Your task to perform on an android device: Open Yahoo.com Image 0: 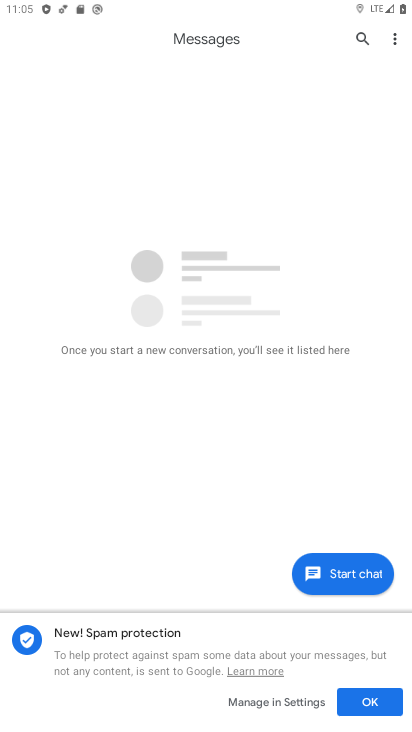
Step 0: press home button
Your task to perform on an android device: Open Yahoo.com Image 1: 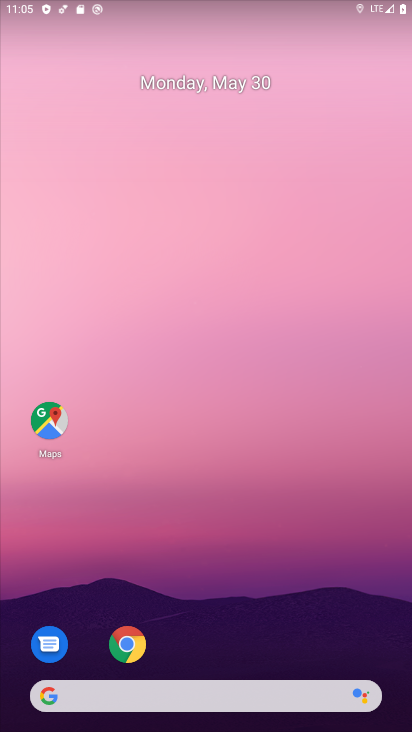
Step 1: click (111, 652)
Your task to perform on an android device: Open Yahoo.com Image 2: 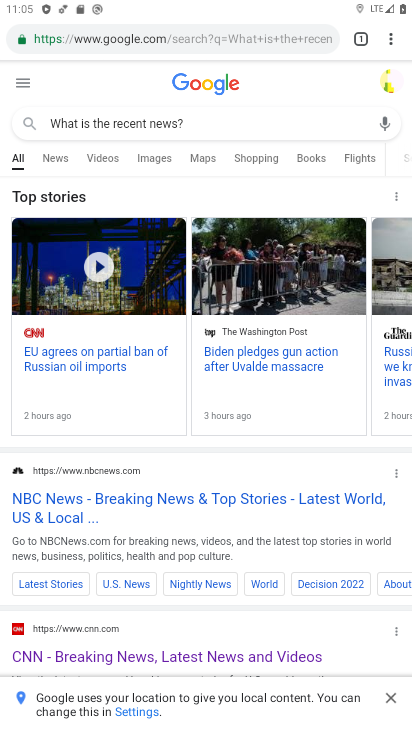
Step 2: click (244, 34)
Your task to perform on an android device: Open Yahoo.com Image 3: 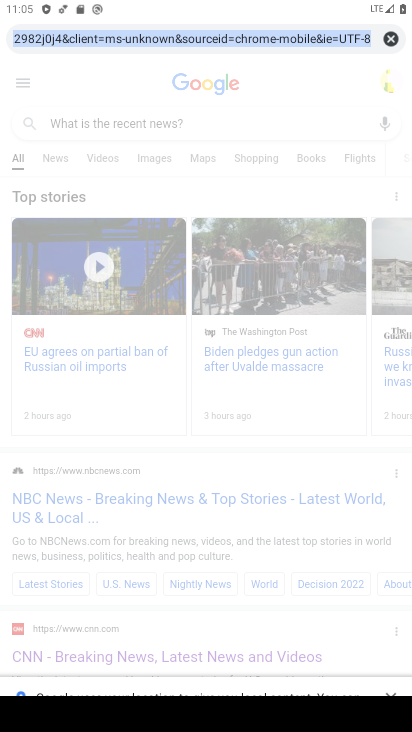
Step 3: click (393, 40)
Your task to perform on an android device: Open Yahoo.com Image 4: 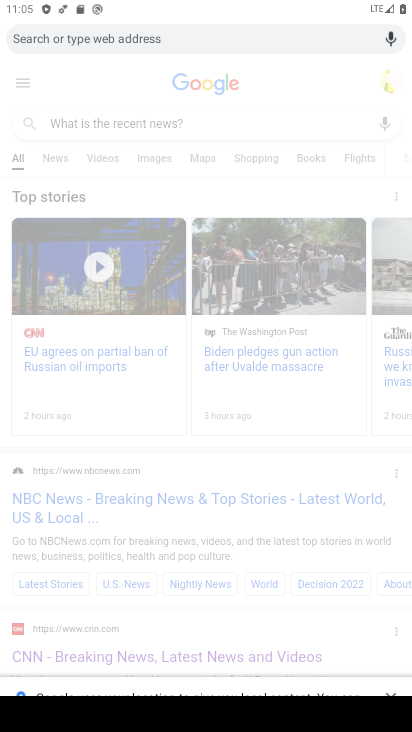
Step 4: type " Yahoo.com"
Your task to perform on an android device: Open Yahoo.com Image 5: 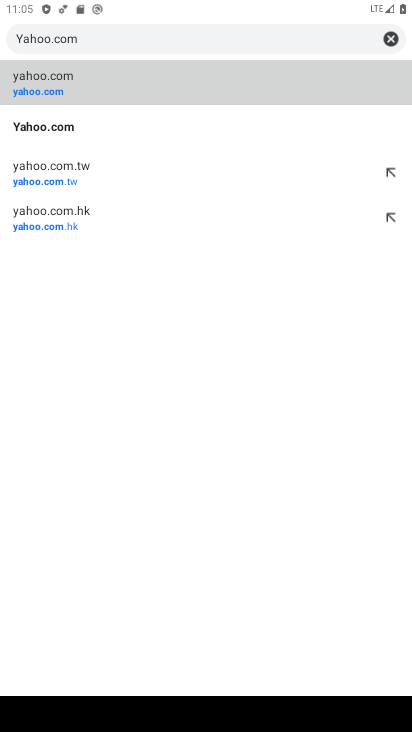
Step 5: click (257, 72)
Your task to perform on an android device: Open Yahoo.com Image 6: 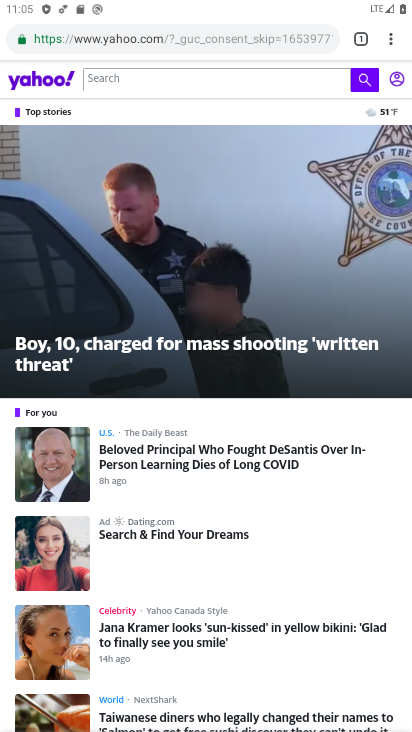
Step 6: task complete